Your task to perform on an android device: Open CNN.com Image 0: 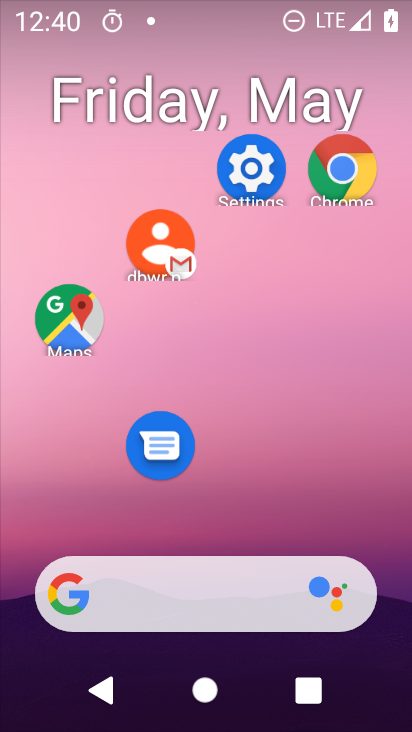
Step 0: click (239, 44)
Your task to perform on an android device: Open CNN.com Image 1: 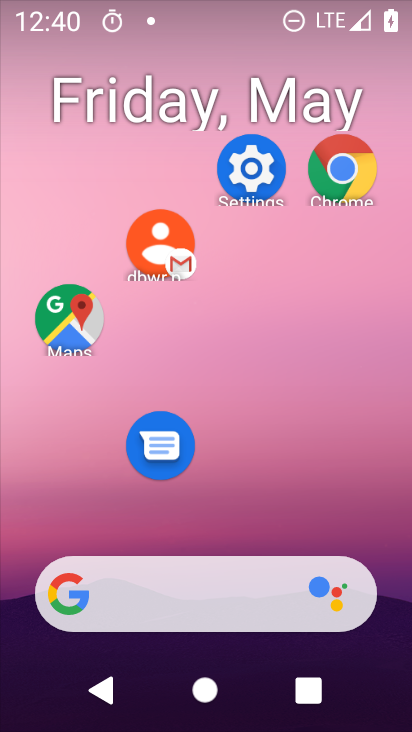
Step 1: click (178, 584)
Your task to perform on an android device: Open CNN.com Image 2: 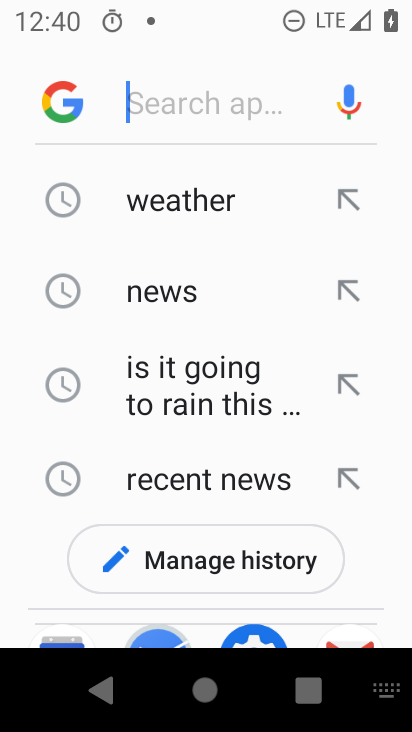
Step 2: type ""
Your task to perform on an android device: Open CNN.com Image 3: 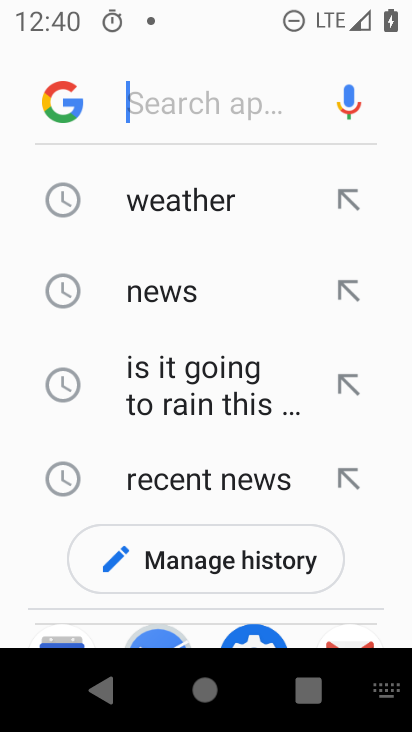
Step 3: type "cnn.com"
Your task to perform on an android device: Open CNN.com Image 4: 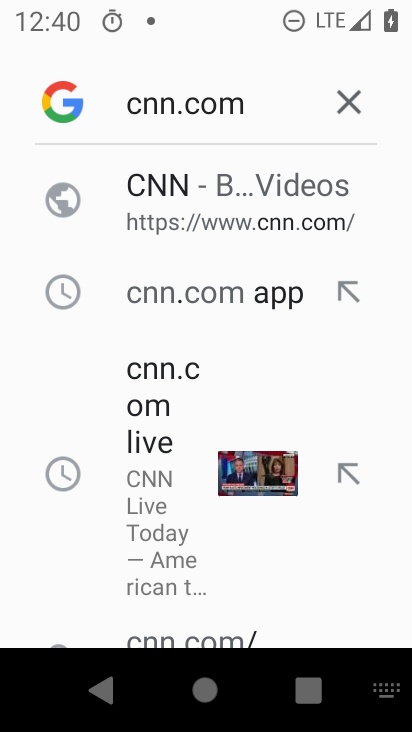
Step 4: click (209, 181)
Your task to perform on an android device: Open CNN.com Image 5: 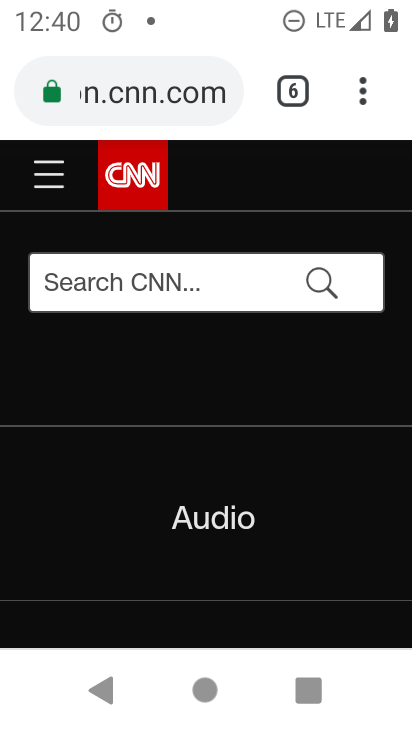
Step 5: task complete